Your task to perform on an android device: toggle location history Image 0: 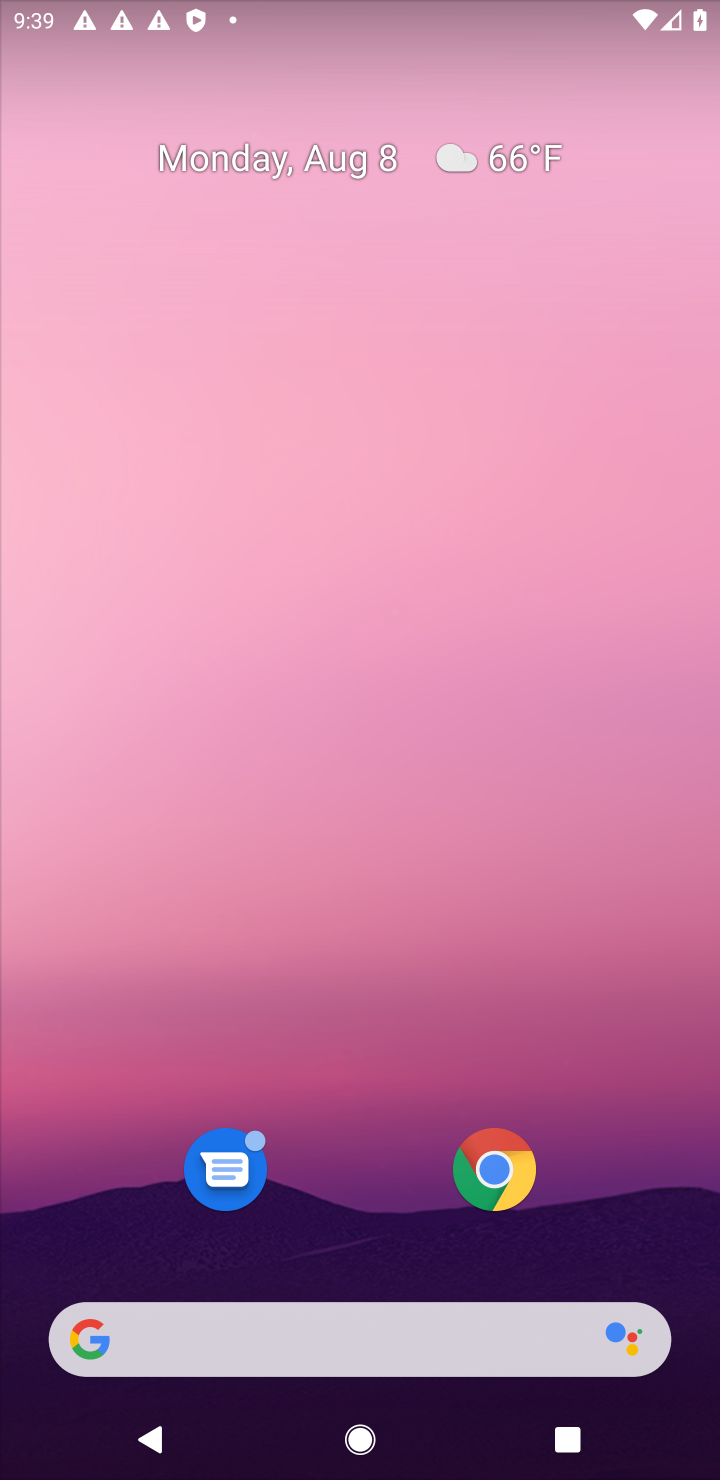
Step 0: drag from (361, 1093) to (453, 420)
Your task to perform on an android device: toggle location history Image 1: 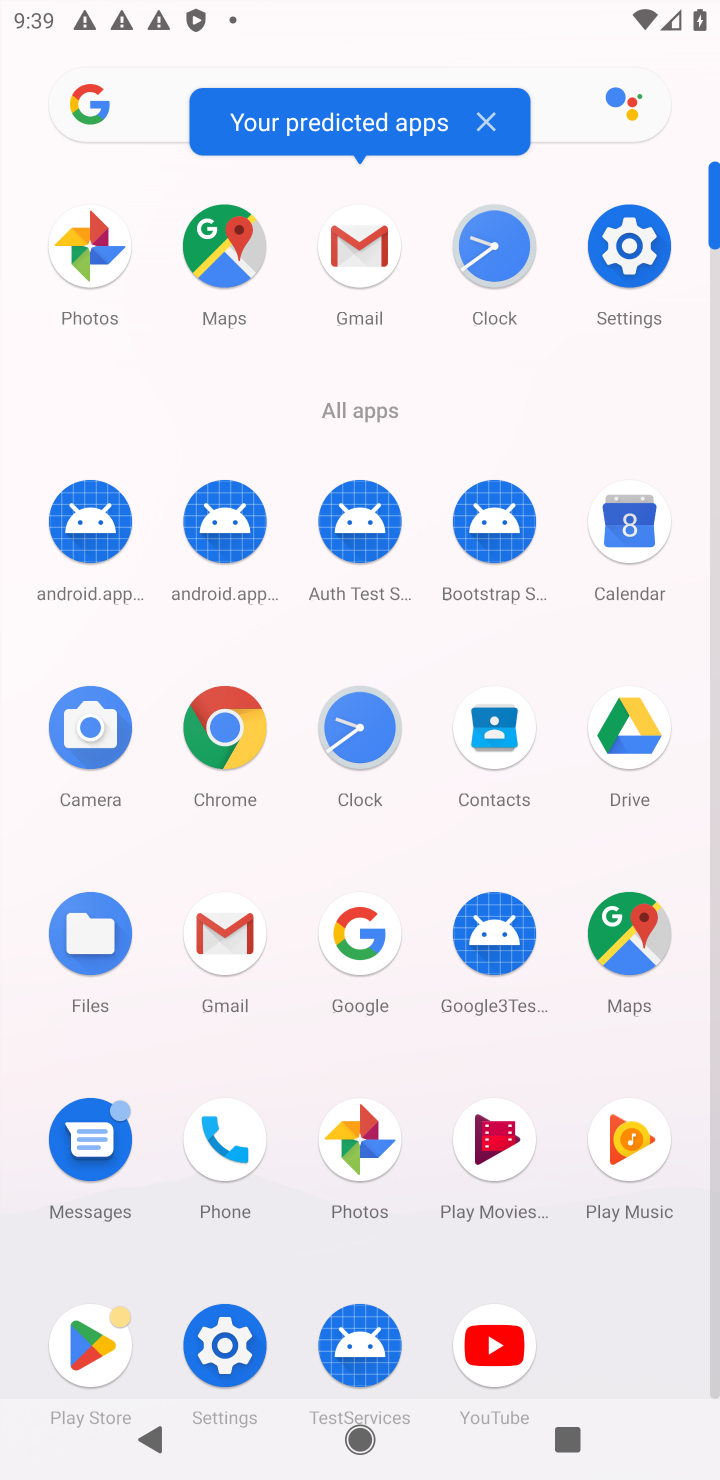
Step 1: click (592, 257)
Your task to perform on an android device: toggle location history Image 2: 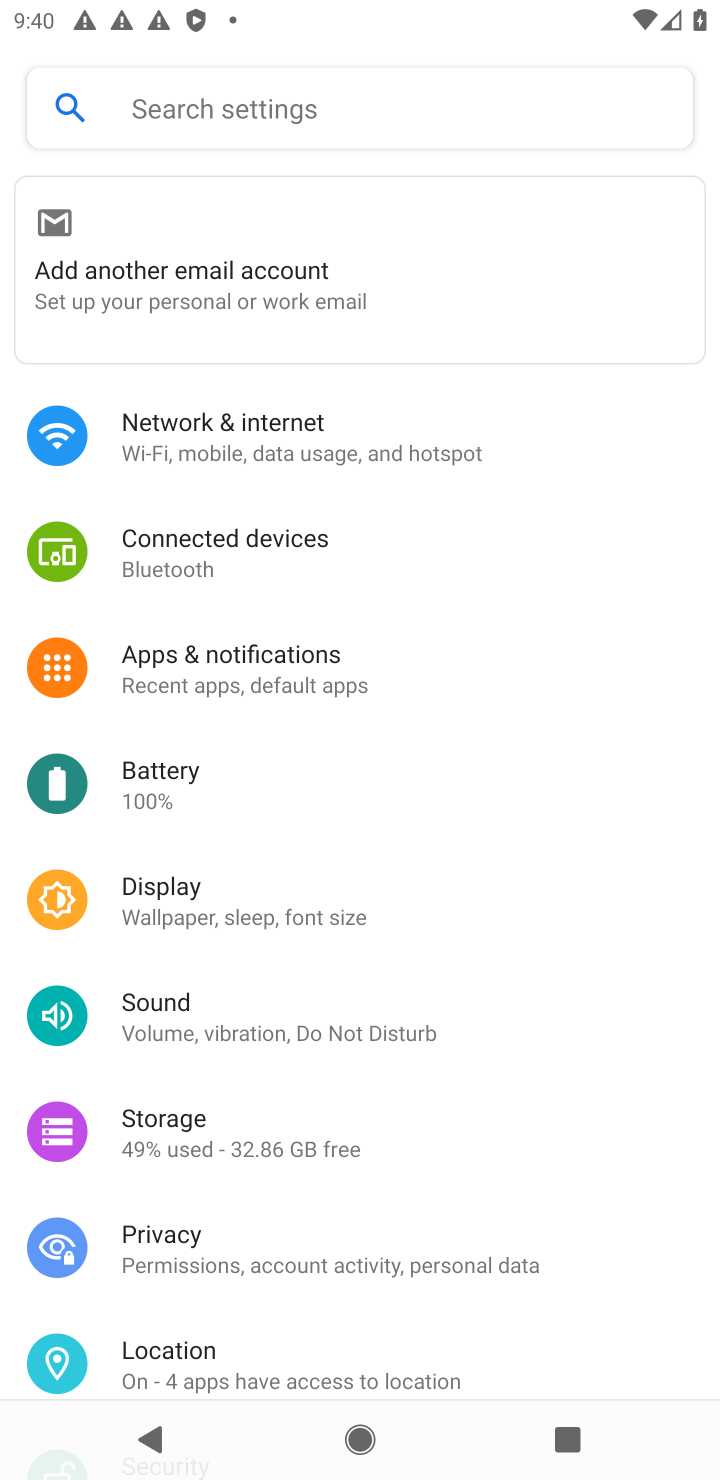
Step 2: click (228, 1375)
Your task to perform on an android device: toggle location history Image 3: 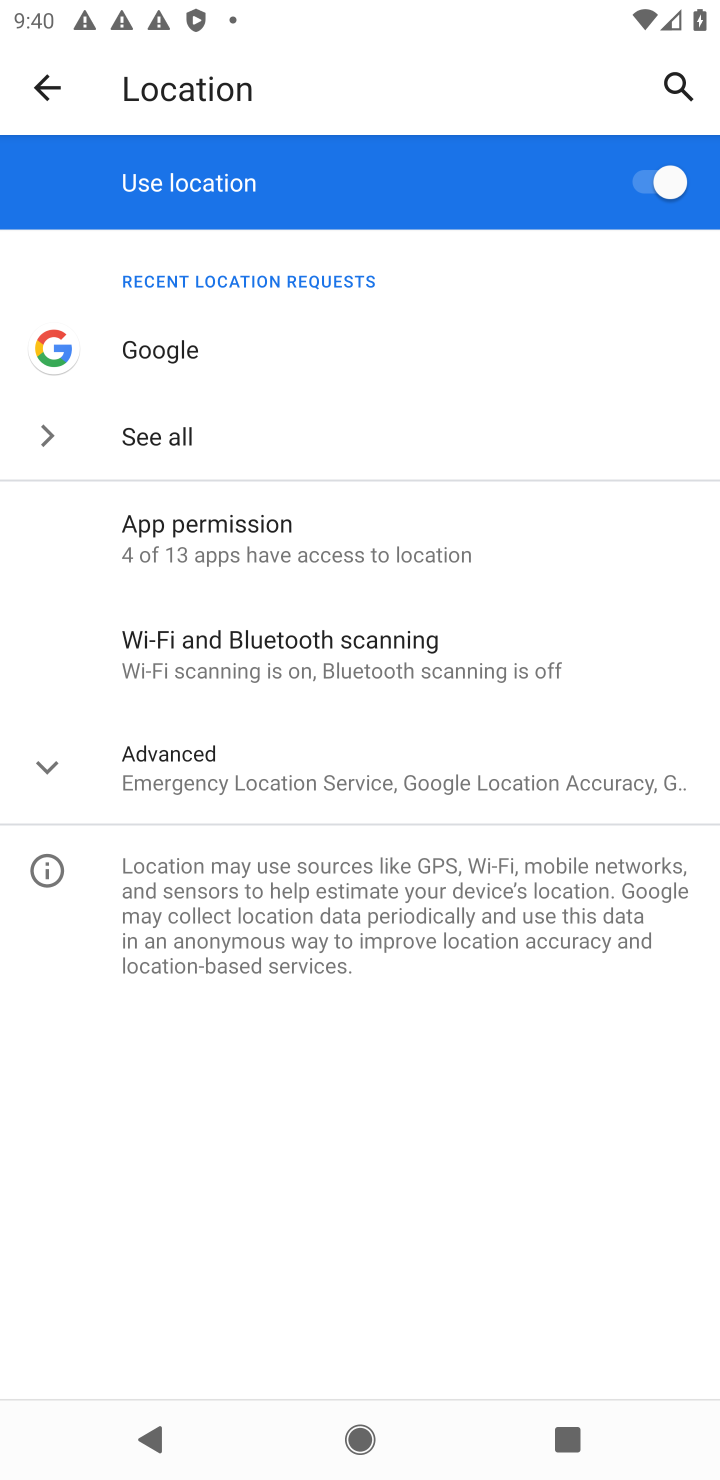
Step 3: click (206, 757)
Your task to perform on an android device: toggle location history Image 4: 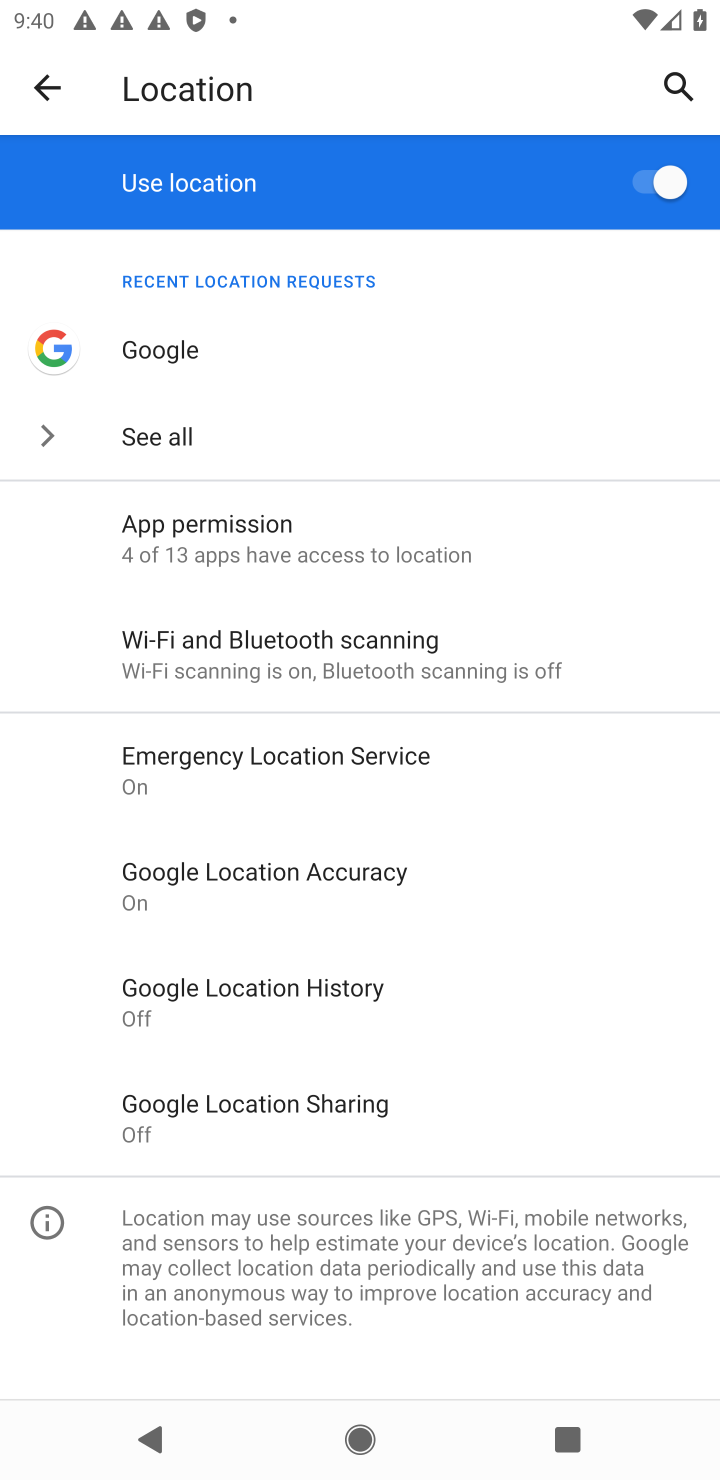
Step 4: click (231, 1000)
Your task to perform on an android device: toggle location history Image 5: 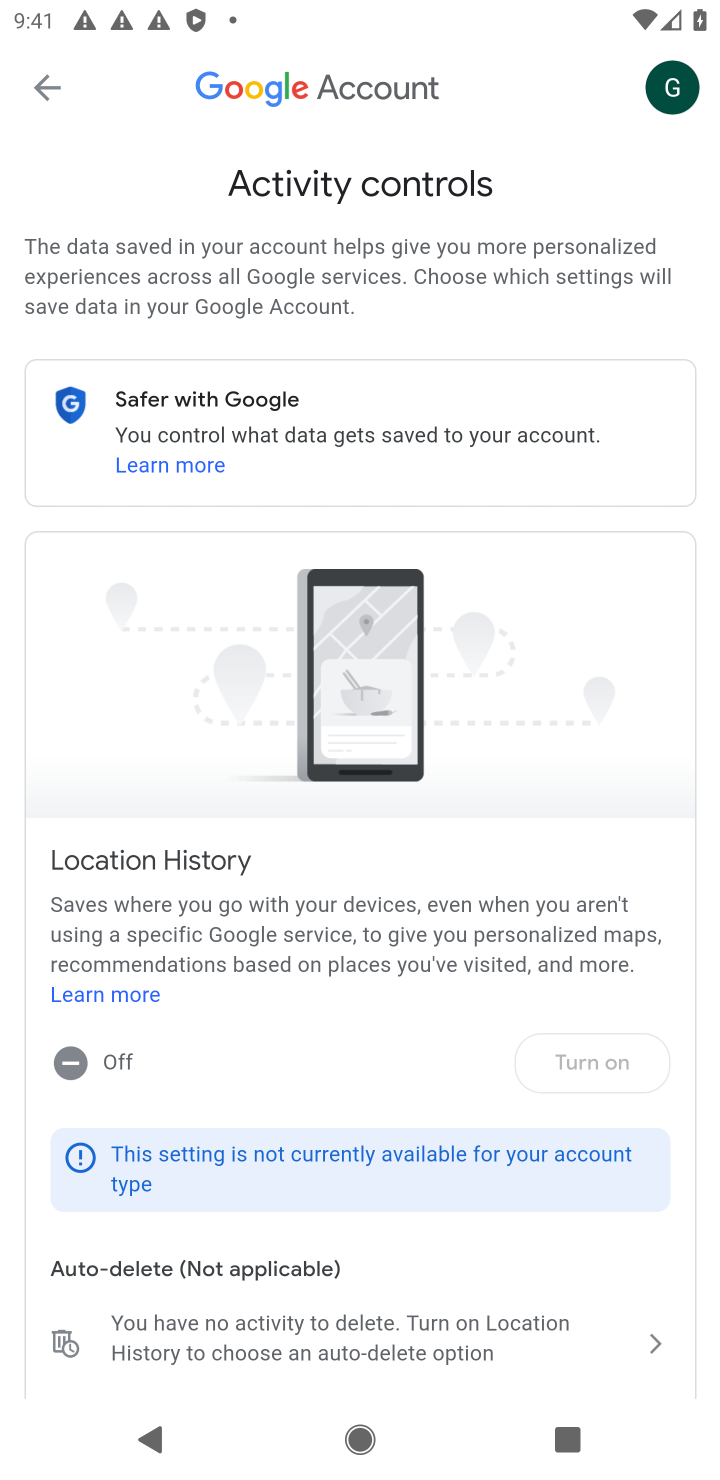
Step 5: task complete